Your task to perform on an android device: Do I have any events today? Image 0: 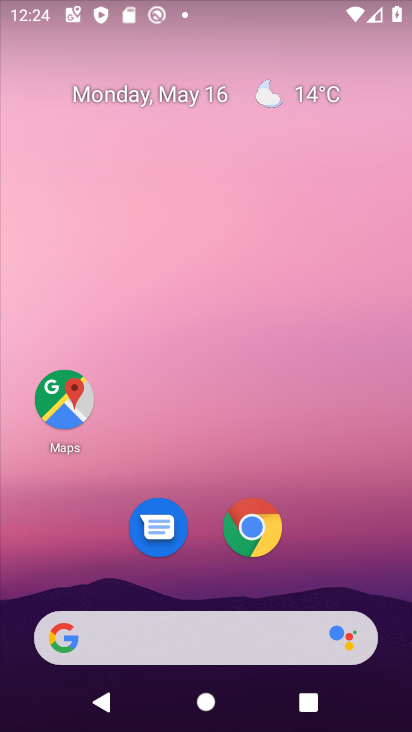
Step 0: drag from (204, 571) to (233, 60)
Your task to perform on an android device: Do I have any events today? Image 1: 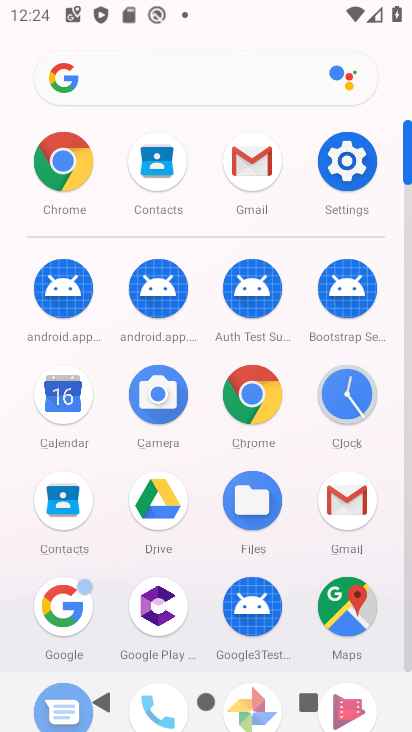
Step 1: drag from (302, 464) to (300, 270)
Your task to perform on an android device: Do I have any events today? Image 2: 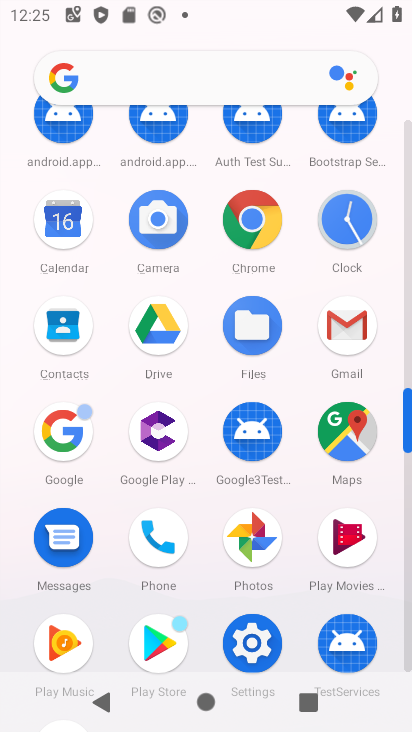
Step 2: drag from (198, 256) to (176, 538)
Your task to perform on an android device: Do I have any events today? Image 3: 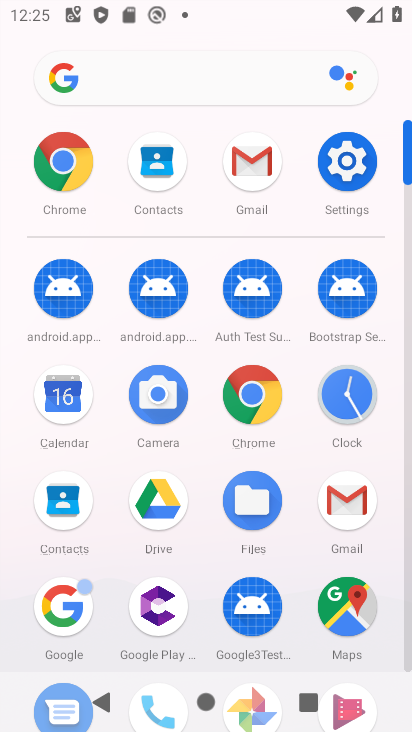
Step 3: click (66, 395)
Your task to perform on an android device: Do I have any events today? Image 4: 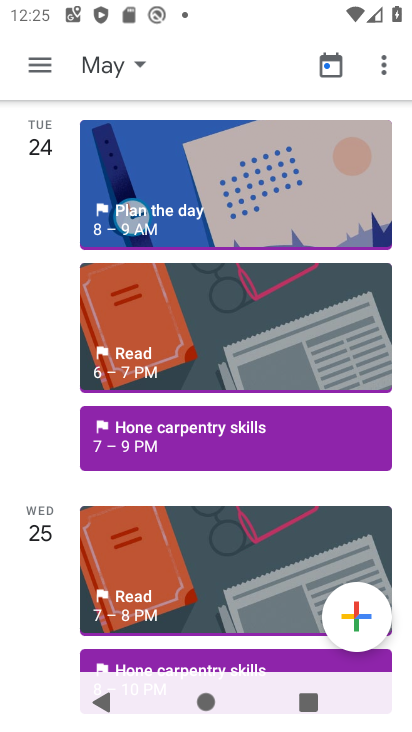
Step 4: click (40, 67)
Your task to perform on an android device: Do I have any events today? Image 5: 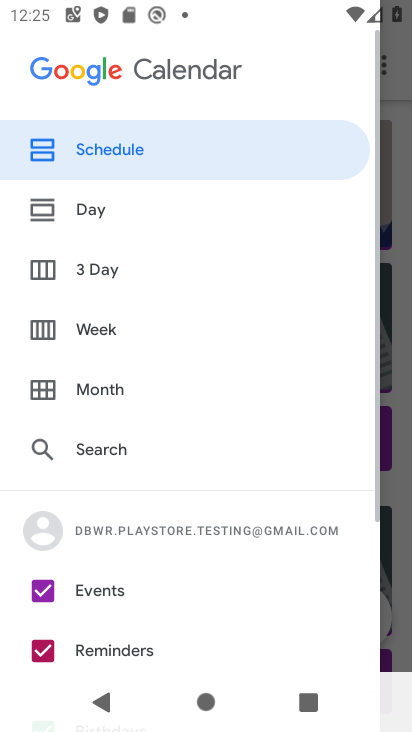
Step 5: click (83, 205)
Your task to perform on an android device: Do I have any events today? Image 6: 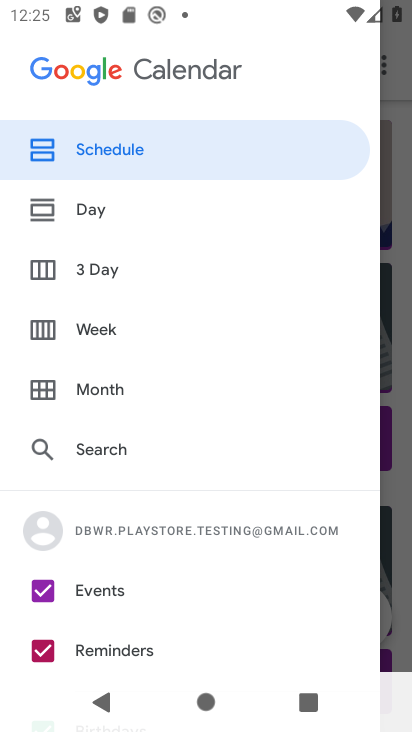
Step 6: click (89, 216)
Your task to perform on an android device: Do I have any events today? Image 7: 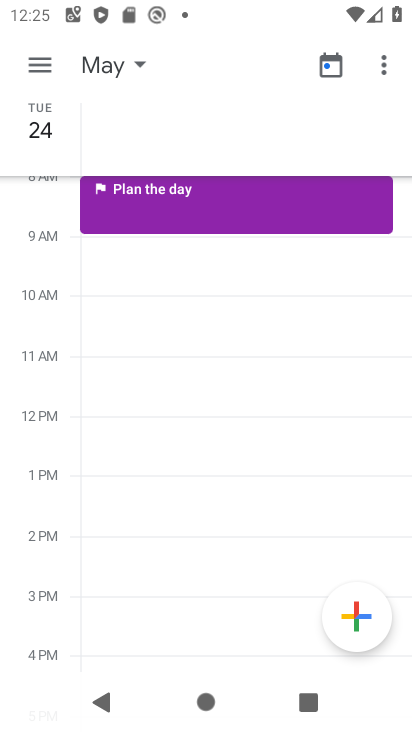
Step 7: task complete